Your task to perform on an android device: Turn off the flashlight Image 0: 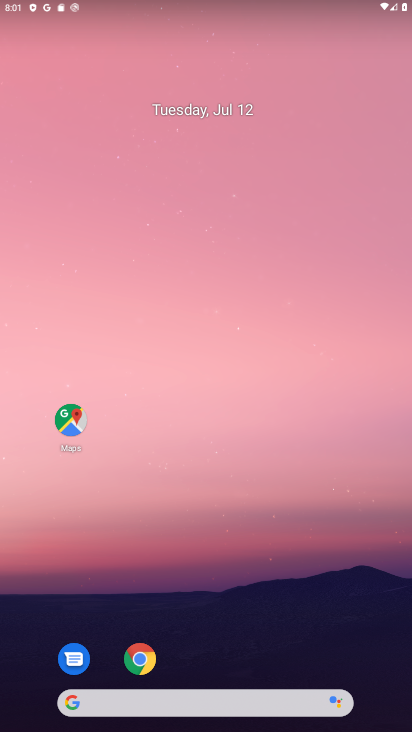
Step 0: click (139, 213)
Your task to perform on an android device: Turn off the flashlight Image 1: 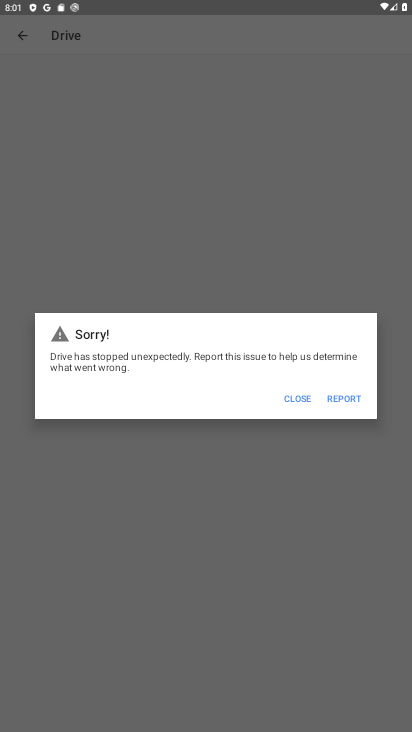
Step 1: click (301, 388)
Your task to perform on an android device: Turn off the flashlight Image 2: 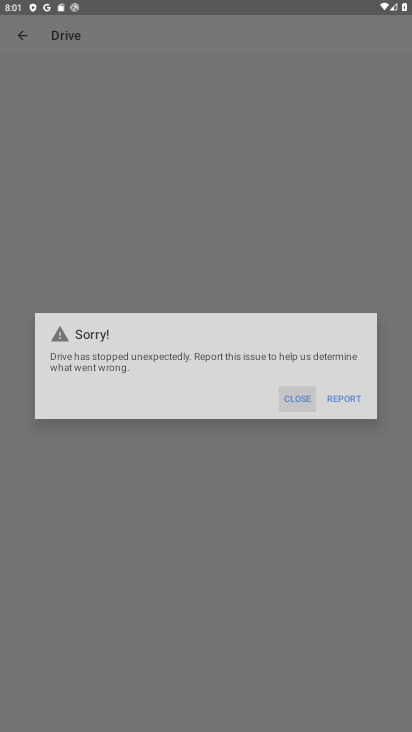
Step 2: click (302, 389)
Your task to perform on an android device: Turn off the flashlight Image 3: 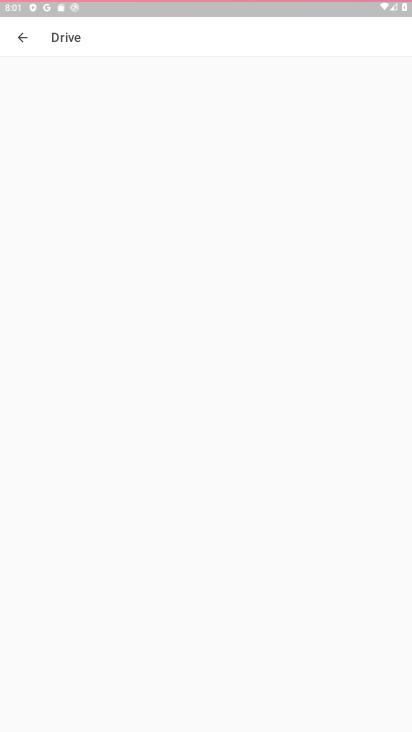
Step 3: click (302, 389)
Your task to perform on an android device: Turn off the flashlight Image 4: 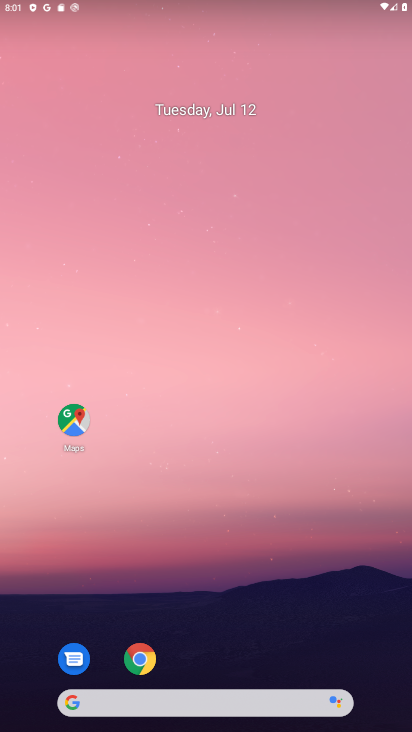
Step 4: task complete